Your task to perform on an android device: Open the Play Movies app and select the watchlist tab. Image 0: 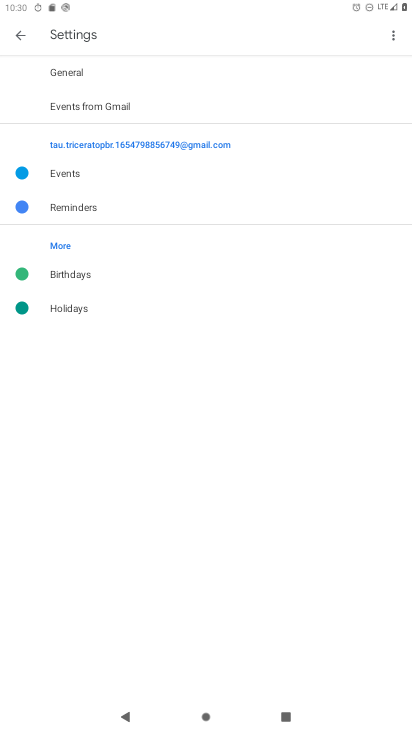
Step 0: press home button
Your task to perform on an android device: Open the Play Movies app and select the watchlist tab. Image 1: 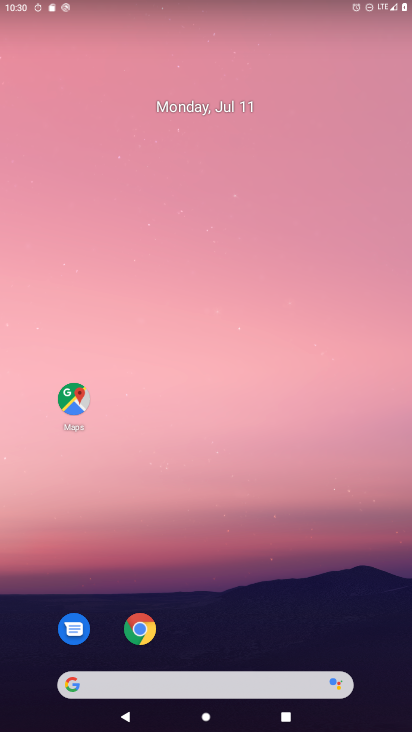
Step 1: drag from (209, 635) to (376, 59)
Your task to perform on an android device: Open the Play Movies app and select the watchlist tab. Image 2: 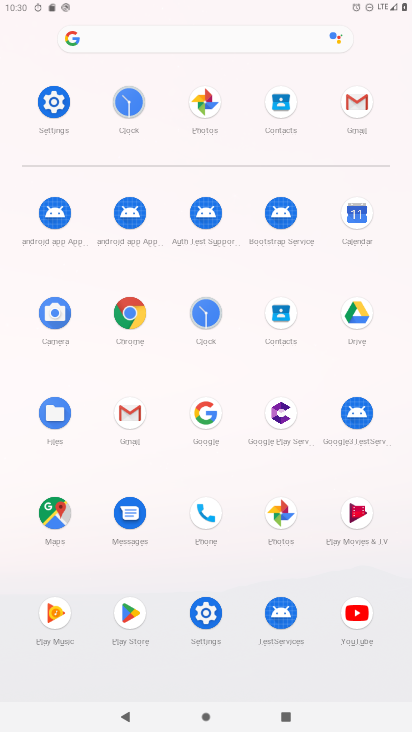
Step 2: click (354, 524)
Your task to perform on an android device: Open the Play Movies app and select the watchlist tab. Image 3: 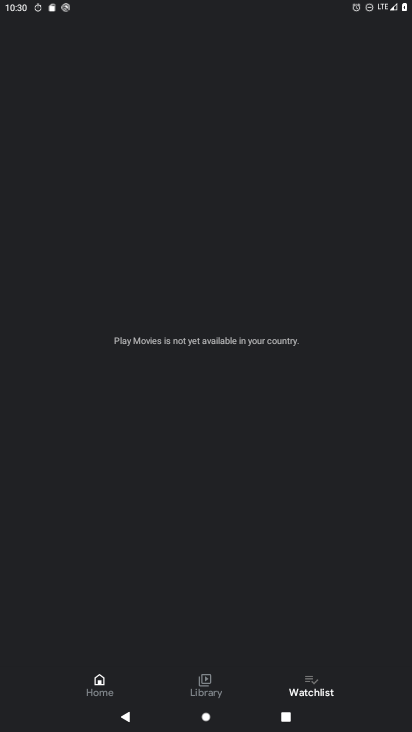
Step 3: task complete